Your task to perform on an android device: When is my next meeting? Image 0: 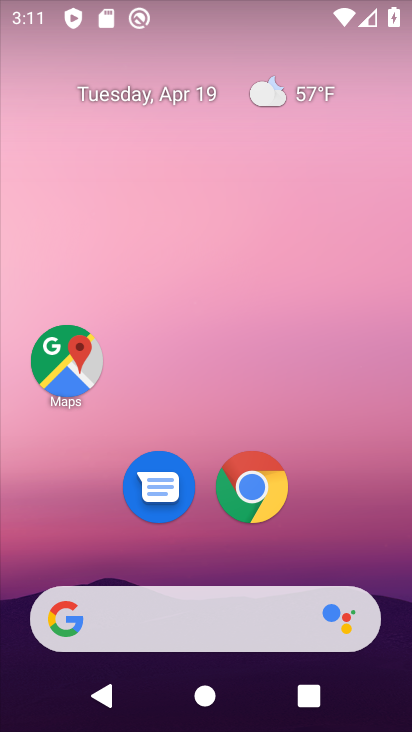
Step 0: drag from (344, 514) to (378, 96)
Your task to perform on an android device: When is my next meeting? Image 1: 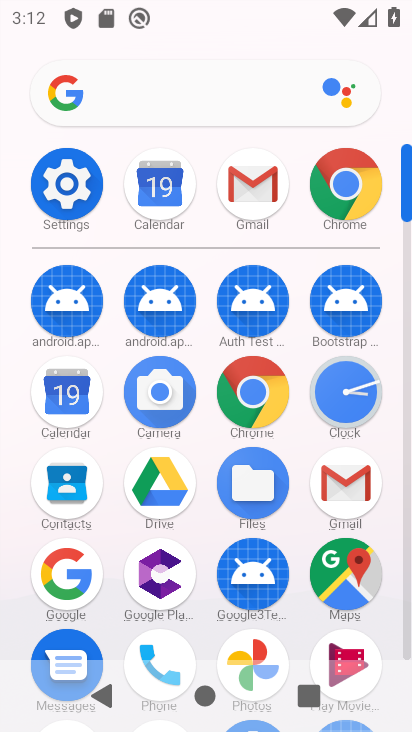
Step 1: click (65, 389)
Your task to perform on an android device: When is my next meeting? Image 2: 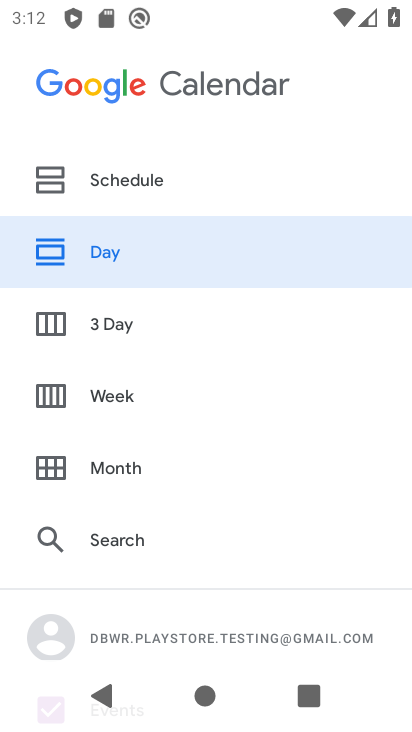
Step 2: click (105, 689)
Your task to perform on an android device: When is my next meeting? Image 3: 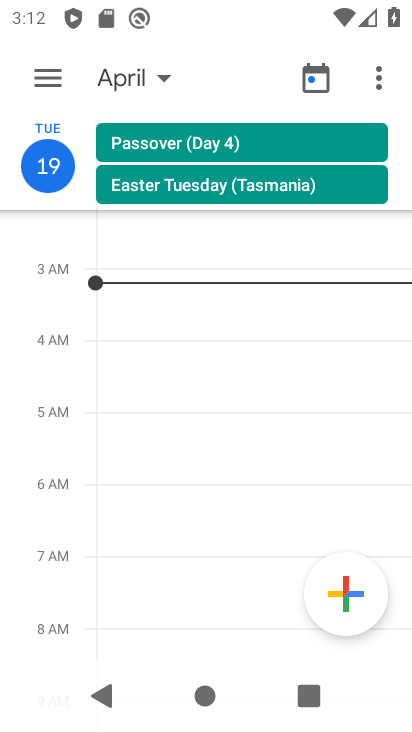
Step 3: click (119, 77)
Your task to perform on an android device: When is my next meeting? Image 4: 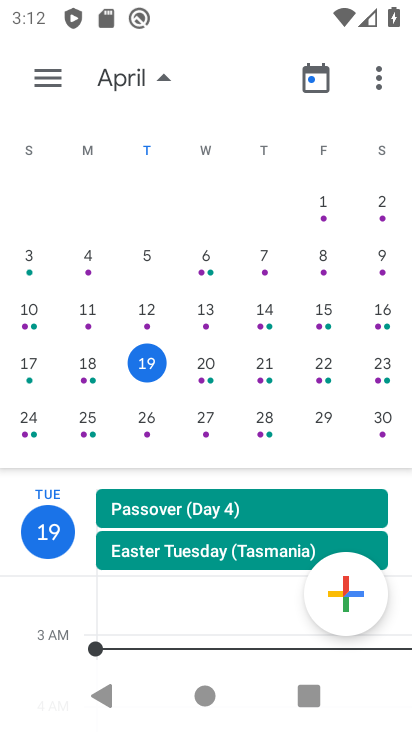
Step 4: drag from (51, 648) to (74, 496)
Your task to perform on an android device: When is my next meeting? Image 5: 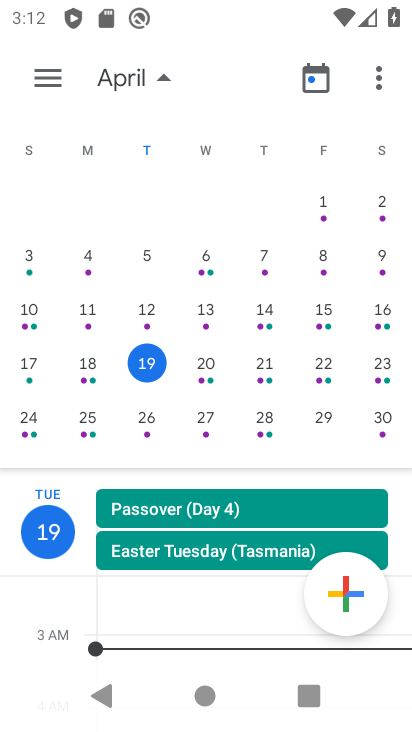
Step 5: drag from (52, 646) to (51, 492)
Your task to perform on an android device: When is my next meeting? Image 6: 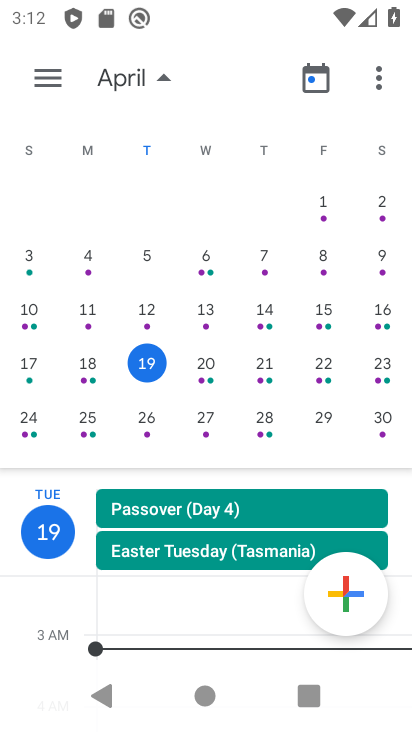
Step 6: drag from (37, 638) to (63, 479)
Your task to perform on an android device: When is my next meeting? Image 7: 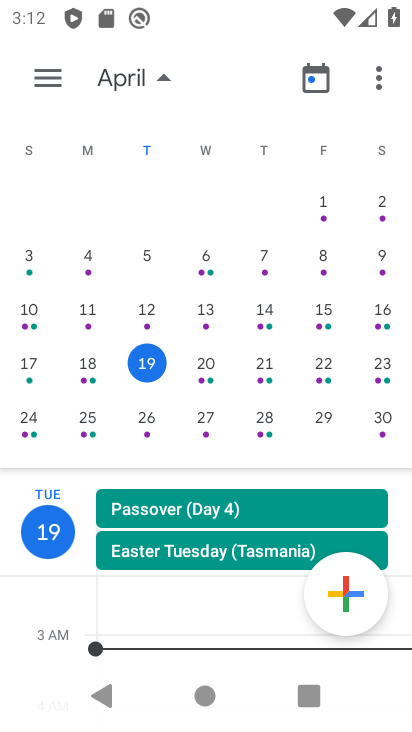
Step 7: drag from (57, 641) to (41, 412)
Your task to perform on an android device: When is my next meeting? Image 8: 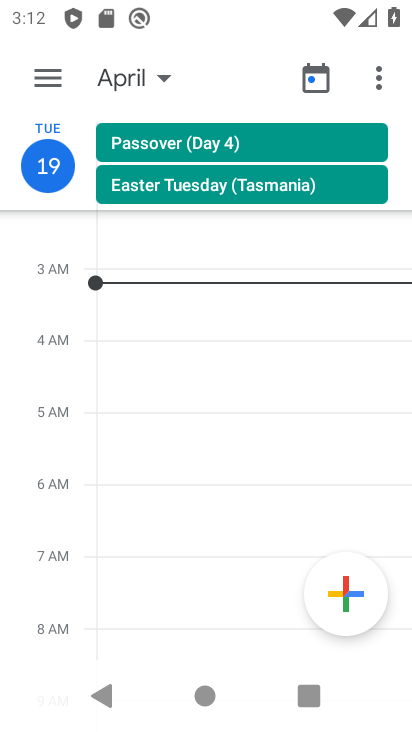
Step 8: drag from (50, 611) to (61, 292)
Your task to perform on an android device: When is my next meeting? Image 9: 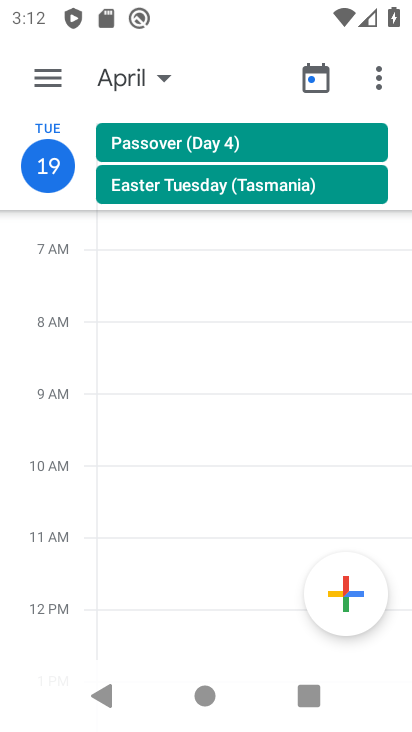
Step 9: drag from (27, 632) to (65, 375)
Your task to perform on an android device: When is my next meeting? Image 10: 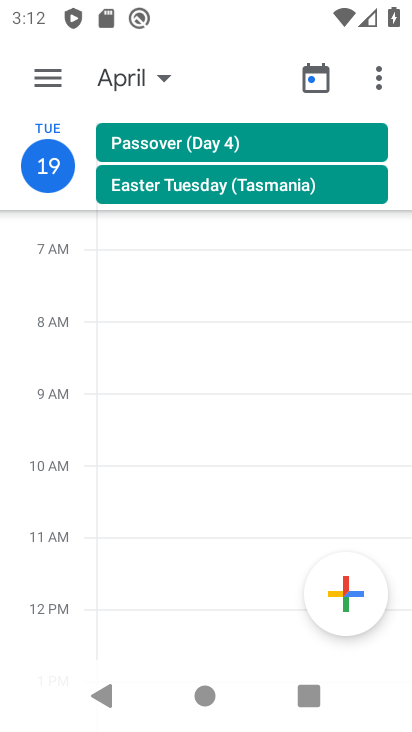
Step 10: click (54, 87)
Your task to perform on an android device: When is my next meeting? Image 11: 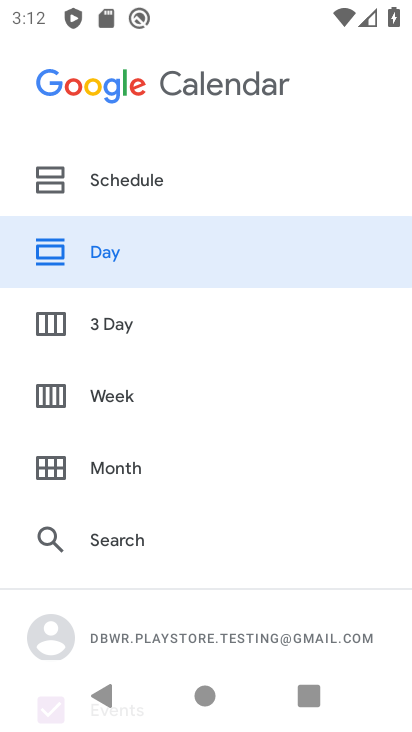
Step 11: click (118, 191)
Your task to perform on an android device: When is my next meeting? Image 12: 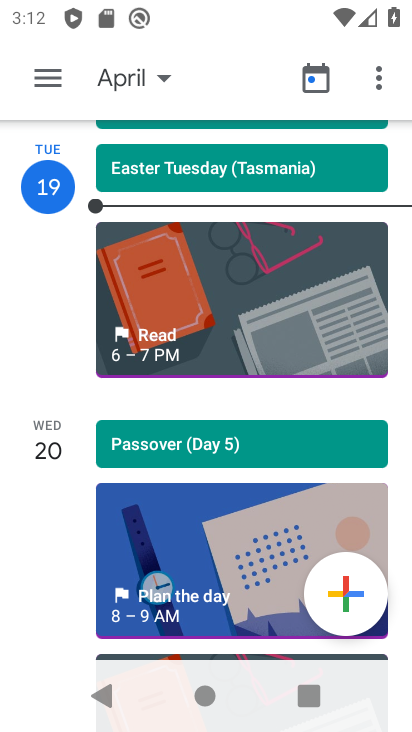
Step 12: task complete